Your task to perform on an android device: What is the capital of England? Image 0: 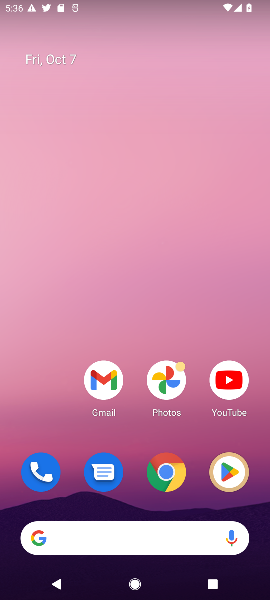
Step 0: click (165, 476)
Your task to perform on an android device: What is the capital of England? Image 1: 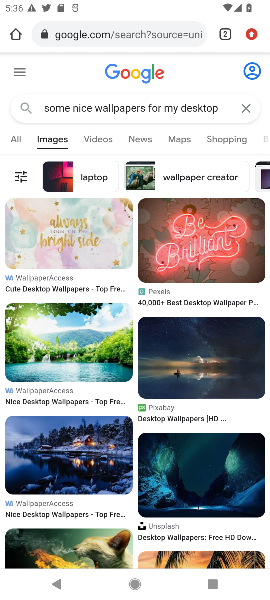
Step 1: click (115, 33)
Your task to perform on an android device: What is the capital of England? Image 2: 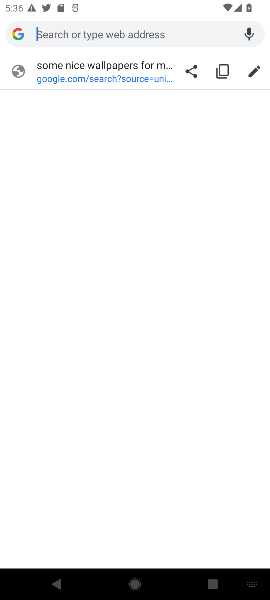
Step 2: type "capital of England"
Your task to perform on an android device: What is the capital of England? Image 3: 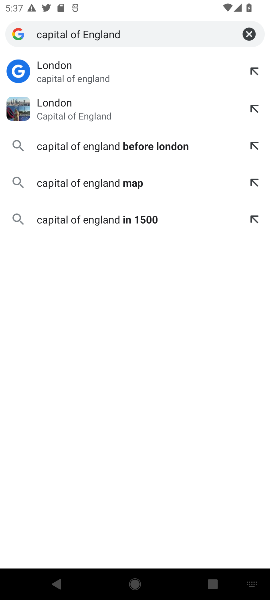
Step 3: press enter
Your task to perform on an android device: What is the capital of England? Image 4: 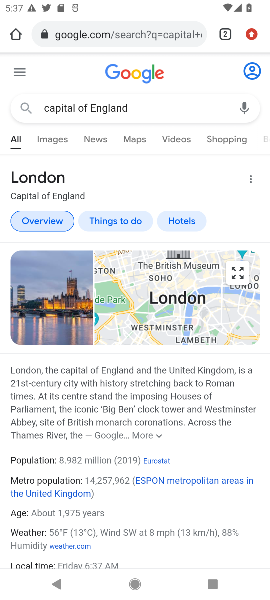
Step 4: task complete